Your task to perform on an android device: Go to settings Image 0: 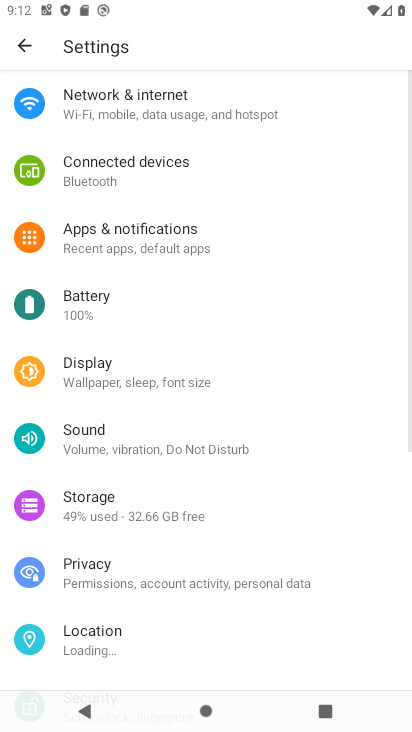
Step 0: press home button
Your task to perform on an android device: Go to settings Image 1: 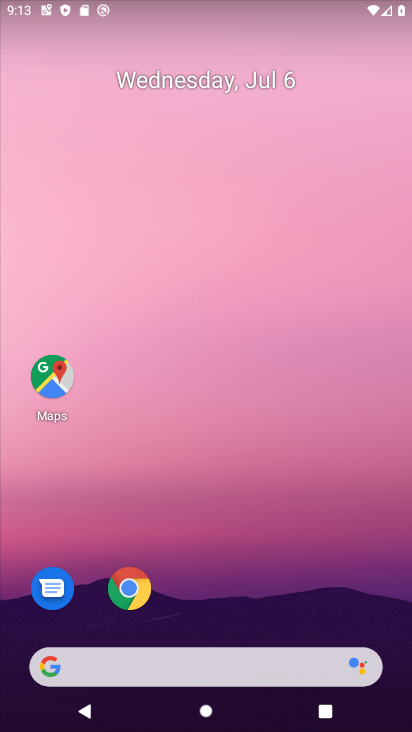
Step 1: drag from (145, 667) to (329, 42)
Your task to perform on an android device: Go to settings Image 2: 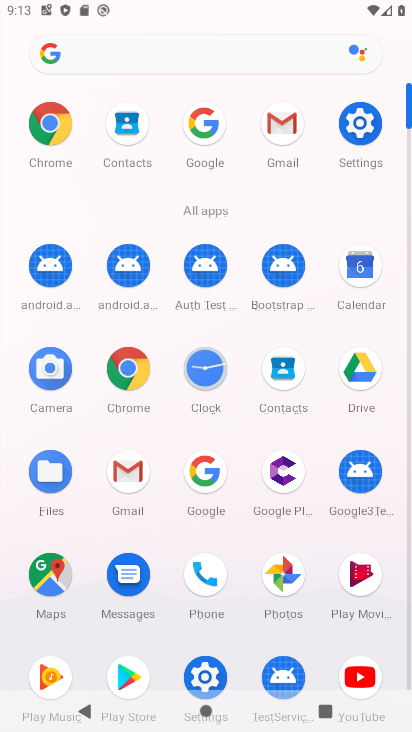
Step 2: click (363, 115)
Your task to perform on an android device: Go to settings Image 3: 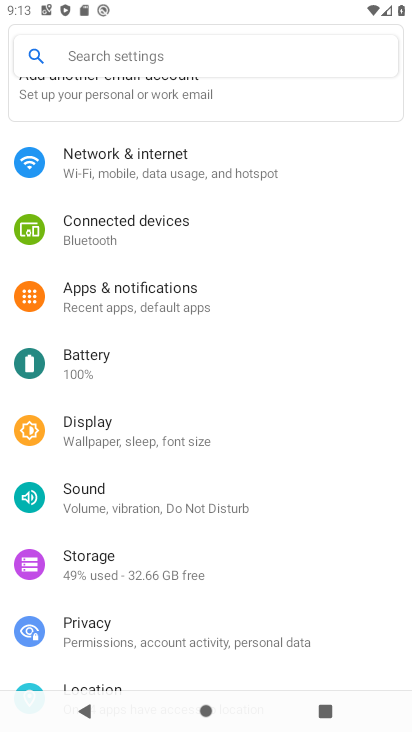
Step 3: task complete